Your task to perform on an android device: empty trash in the gmail app Image 0: 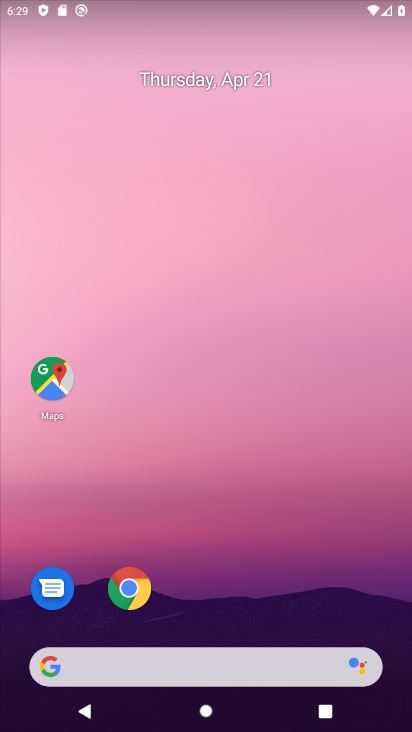
Step 0: drag from (220, 589) to (233, 331)
Your task to perform on an android device: empty trash in the gmail app Image 1: 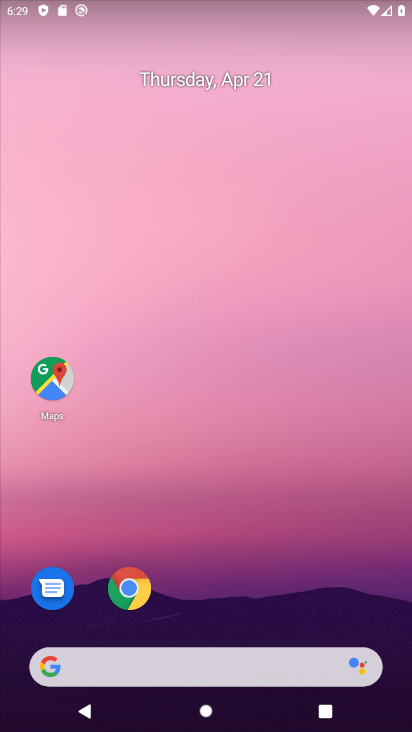
Step 1: drag from (186, 571) to (269, 224)
Your task to perform on an android device: empty trash in the gmail app Image 2: 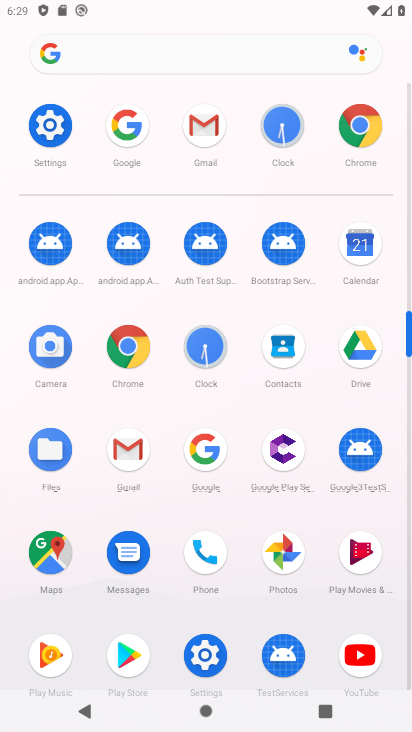
Step 2: click (211, 115)
Your task to perform on an android device: empty trash in the gmail app Image 3: 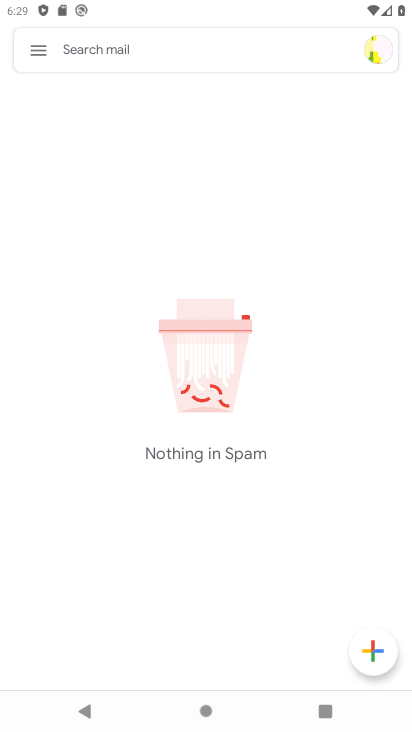
Step 3: click (38, 51)
Your task to perform on an android device: empty trash in the gmail app Image 4: 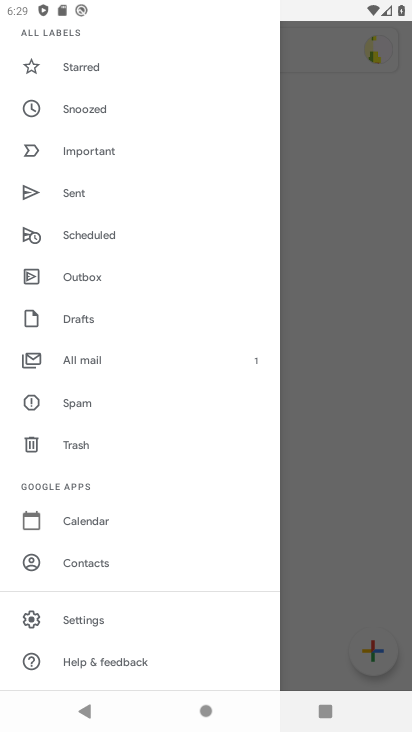
Step 4: click (100, 447)
Your task to perform on an android device: empty trash in the gmail app Image 5: 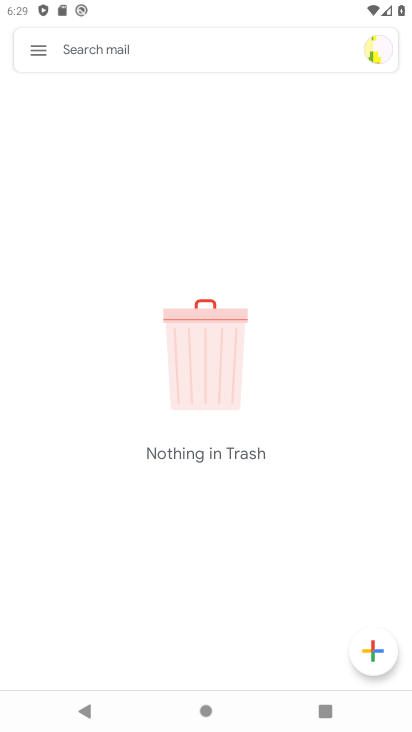
Step 5: task complete